Your task to perform on an android device: turn off notifications settings in the gmail app Image 0: 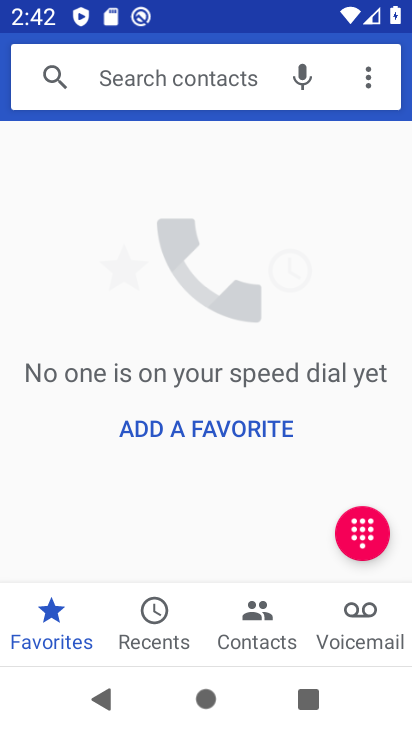
Step 0: press home button
Your task to perform on an android device: turn off notifications settings in the gmail app Image 1: 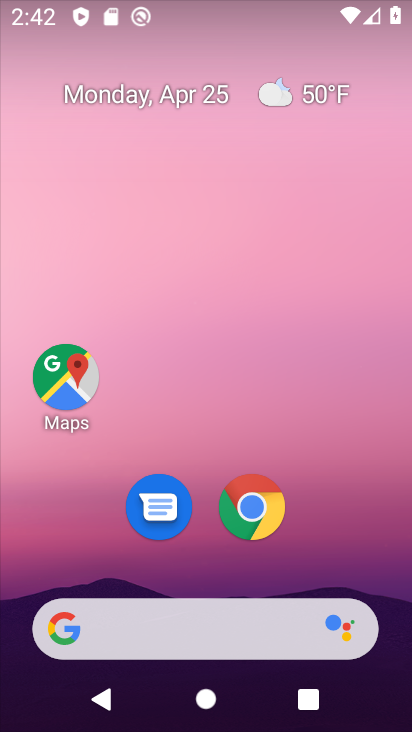
Step 1: drag from (391, 595) to (332, 82)
Your task to perform on an android device: turn off notifications settings in the gmail app Image 2: 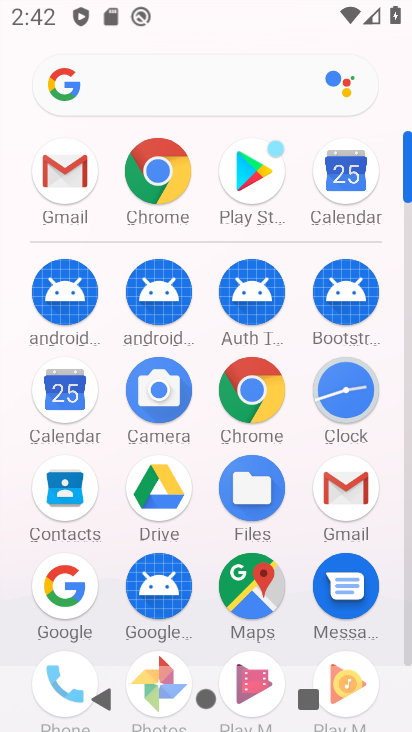
Step 2: click (407, 645)
Your task to perform on an android device: turn off notifications settings in the gmail app Image 3: 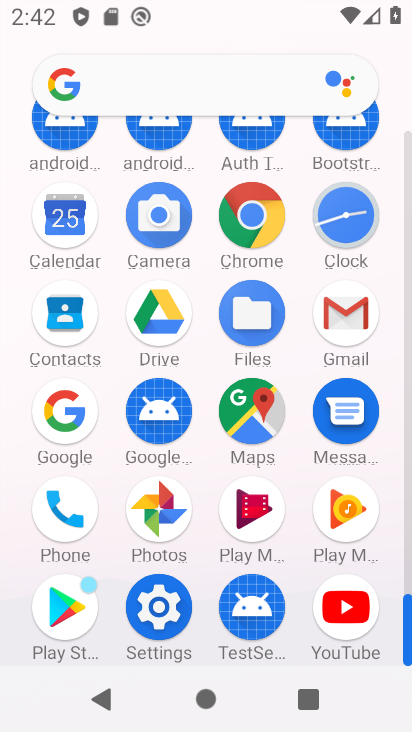
Step 3: click (342, 311)
Your task to perform on an android device: turn off notifications settings in the gmail app Image 4: 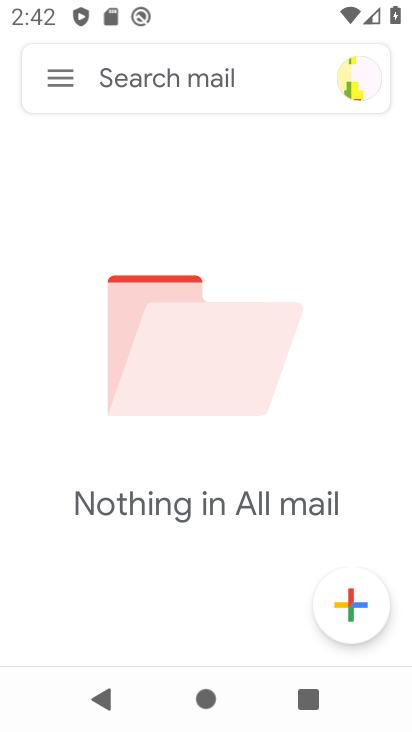
Step 4: click (55, 72)
Your task to perform on an android device: turn off notifications settings in the gmail app Image 5: 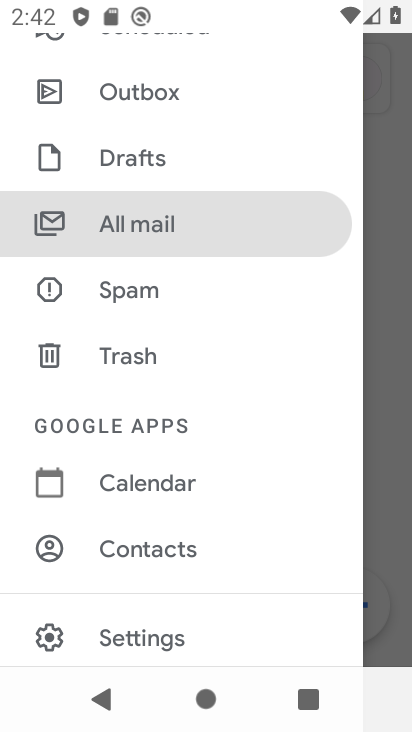
Step 5: click (145, 627)
Your task to perform on an android device: turn off notifications settings in the gmail app Image 6: 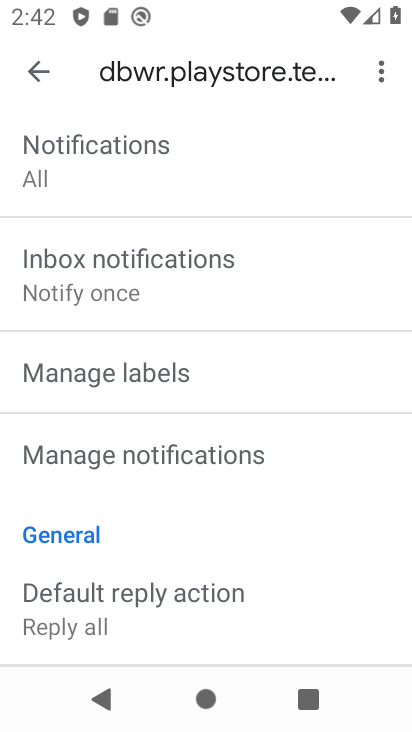
Step 6: click (141, 471)
Your task to perform on an android device: turn off notifications settings in the gmail app Image 7: 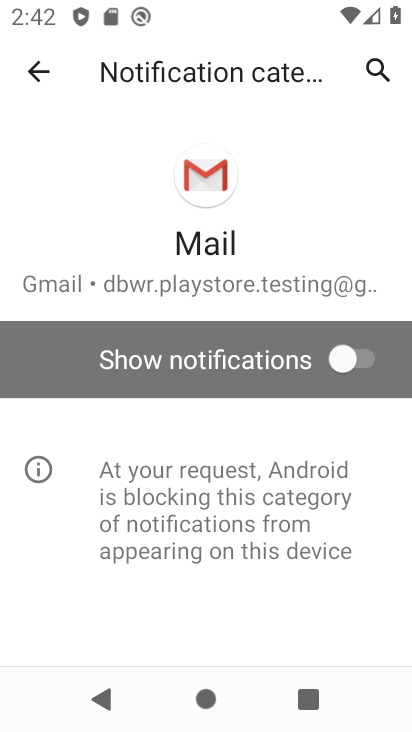
Step 7: task complete